Your task to perform on an android device: Open ESPN.com Image 0: 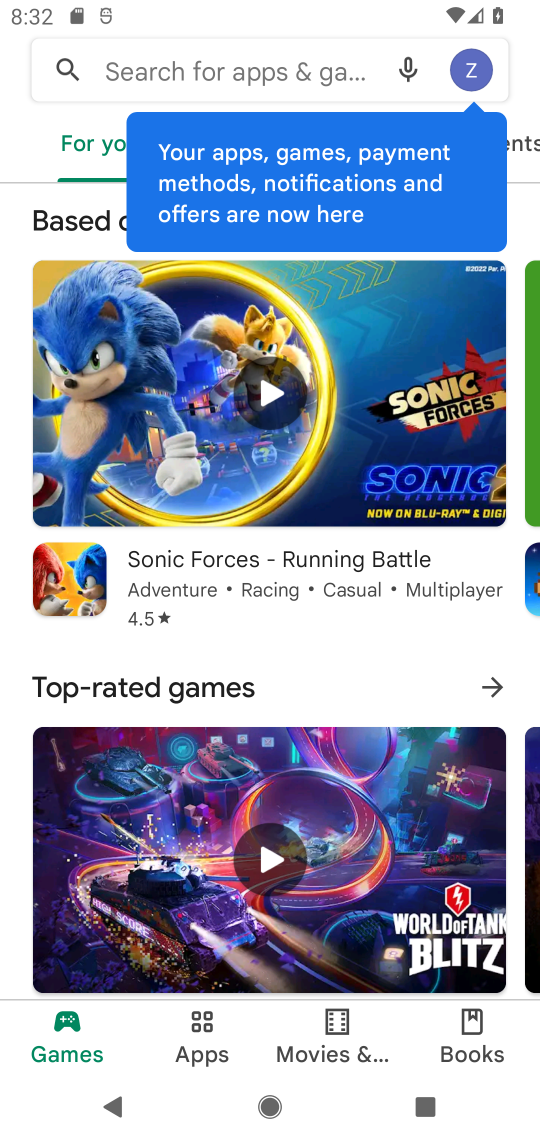
Step 0: press home button
Your task to perform on an android device: Open ESPN.com Image 1: 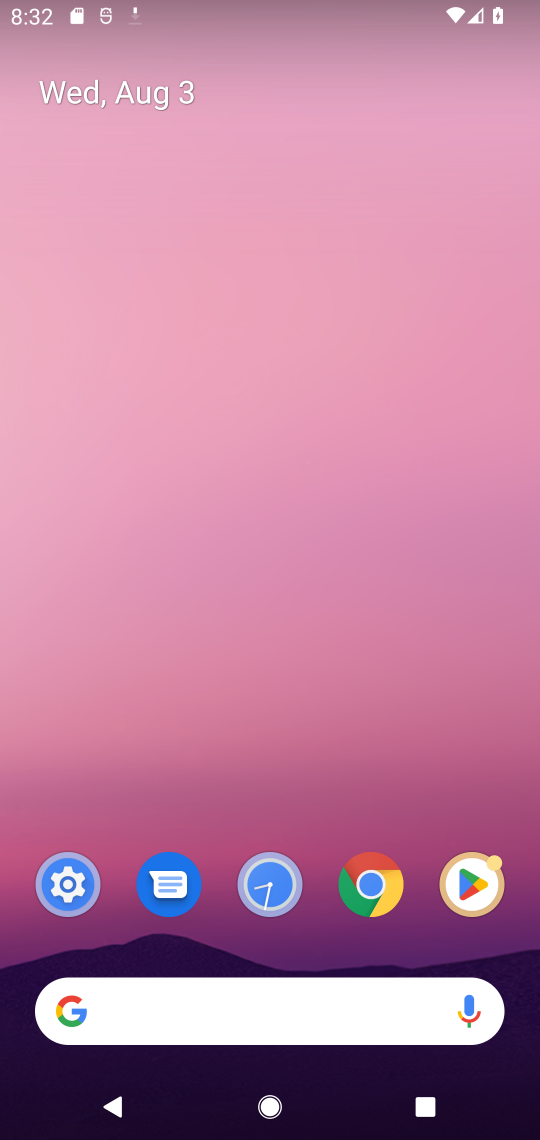
Step 1: click (375, 888)
Your task to perform on an android device: Open ESPN.com Image 2: 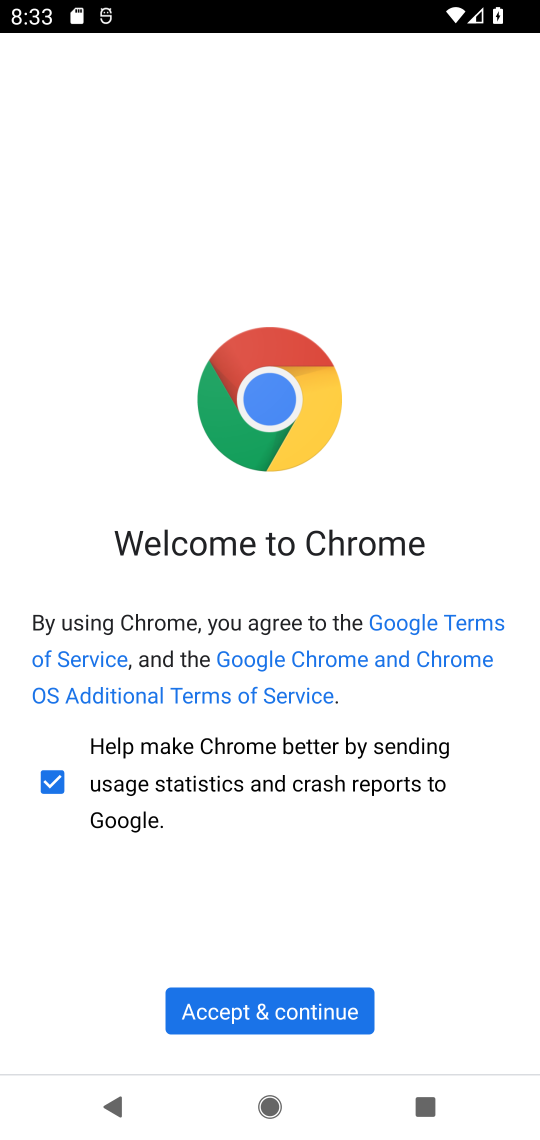
Step 2: click (236, 1016)
Your task to perform on an android device: Open ESPN.com Image 3: 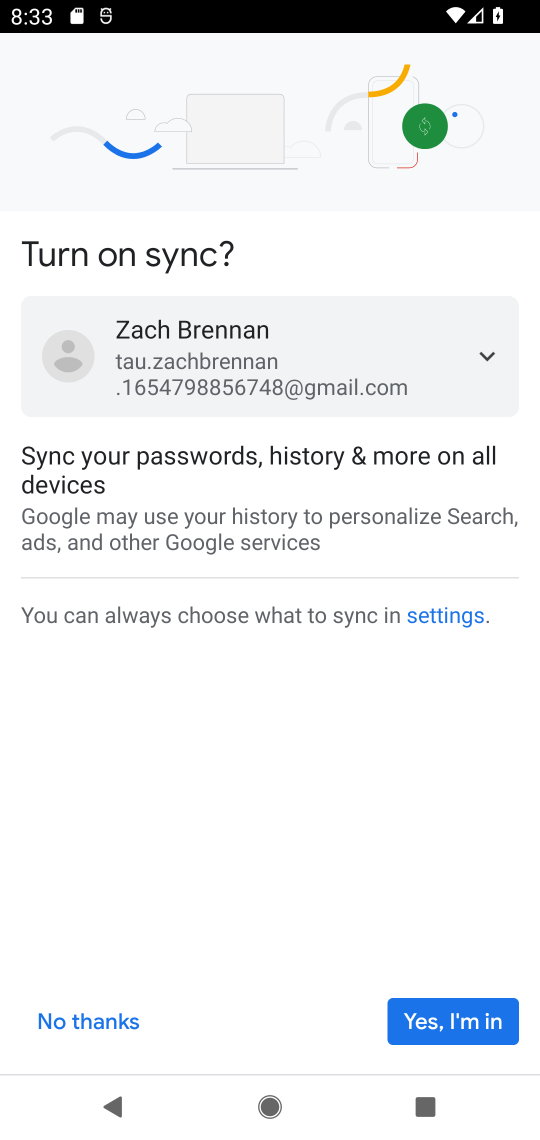
Step 3: click (432, 1018)
Your task to perform on an android device: Open ESPN.com Image 4: 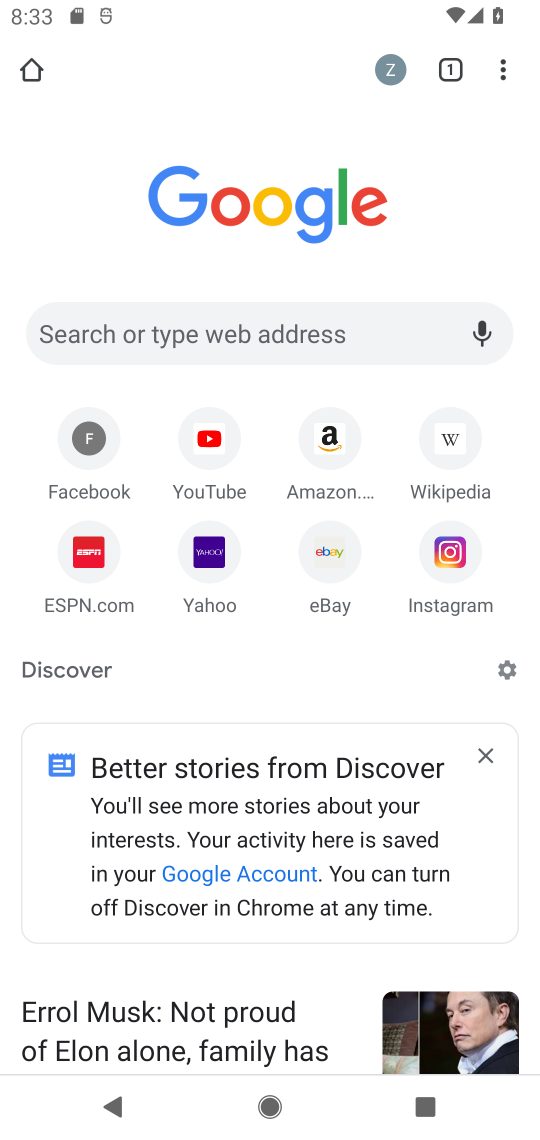
Step 4: click (92, 563)
Your task to perform on an android device: Open ESPN.com Image 5: 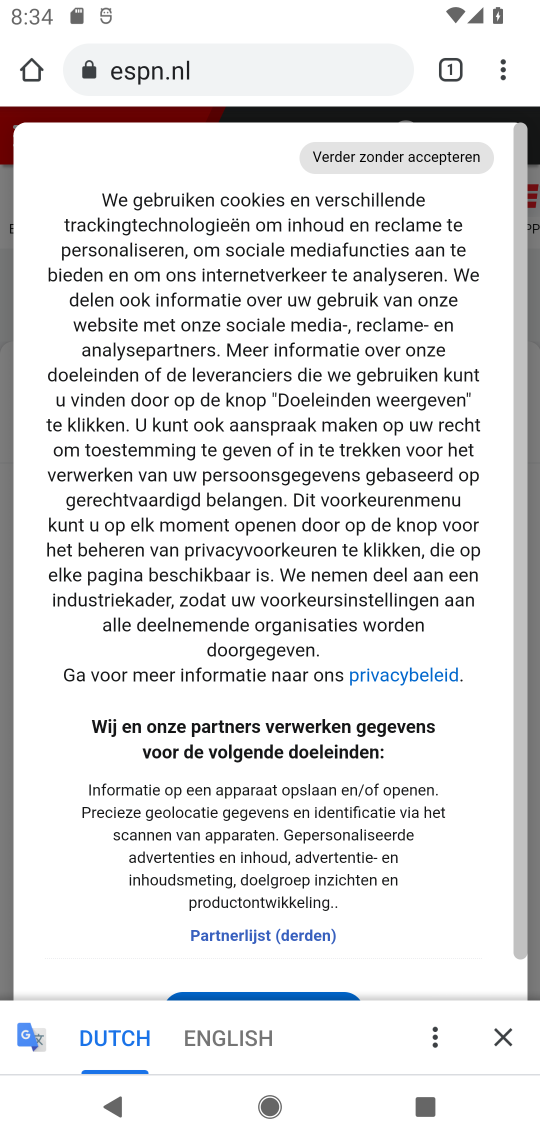
Step 5: task complete